Your task to perform on an android device: Turn on the flashlight Image 0: 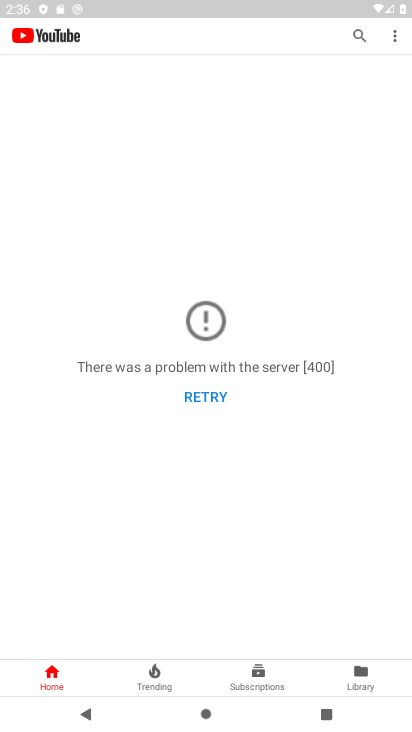
Step 0: press home button
Your task to perform on an android device: Turn on the flashlight Image 1: 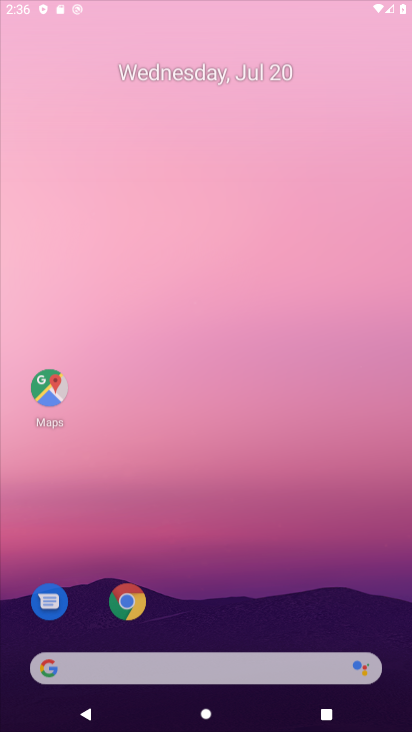
Step 1: press home button
Your task to perform on an android device: Turn on the flashlight Image 2: 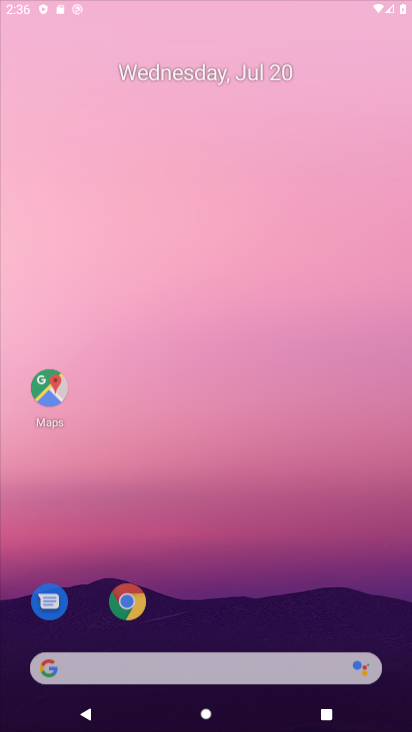
Step 2: click (194, 11)
Your task to perform on an android device: Turn on the flashlight Image 3: 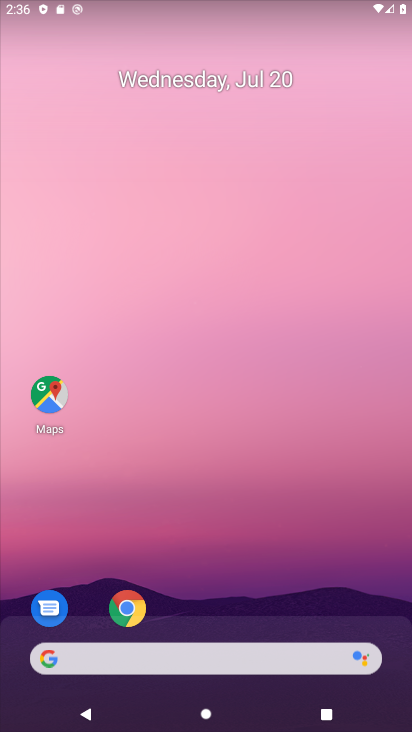
Step 3: drag from (288, 590) to (297, 104)
Your task to perform on an android device: Turn on the flashlight Image 4: 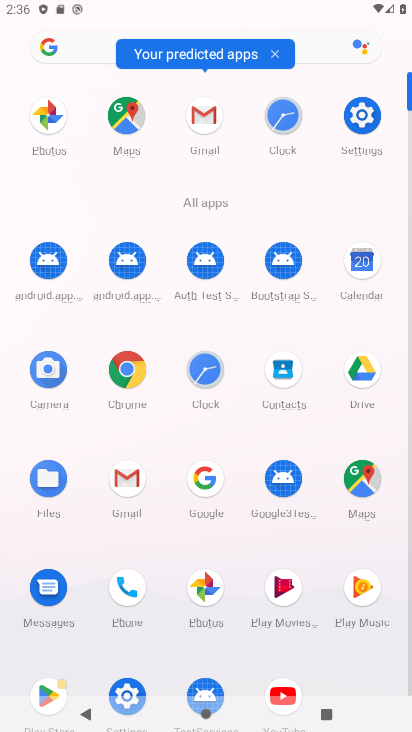
Step 4: click (366, 117)
Your task to perform on an android device: Turn on the flashlight Image 5: 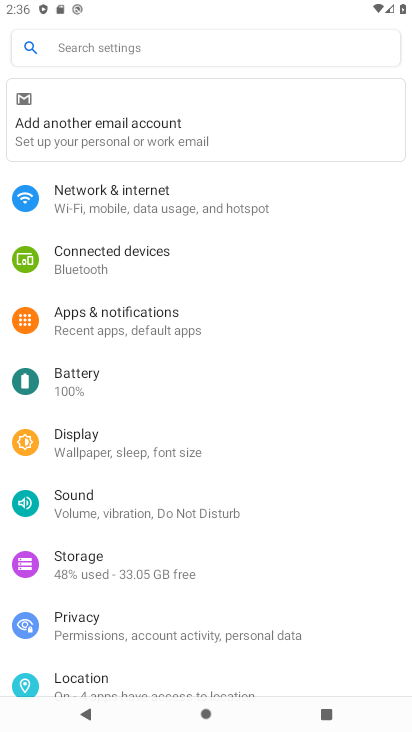
Step 5: drag from (197, 592) to (228, 195)
Your task to perform on an android device: Turn on the flashlight Image 6: 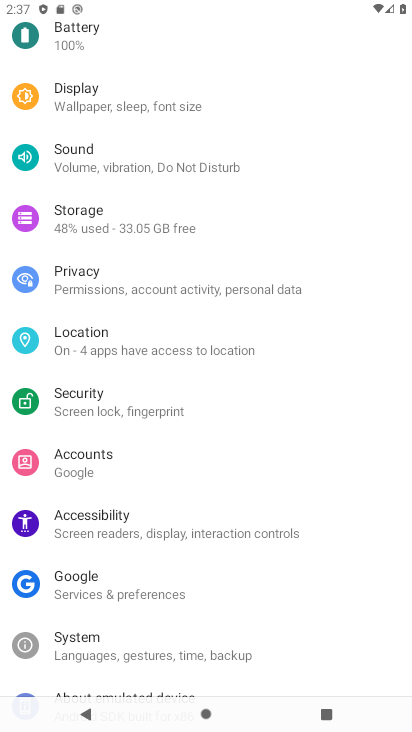
Step 6: click (102, 108)
Your task to perform on an android device: Turn on the flashlight Image 7: 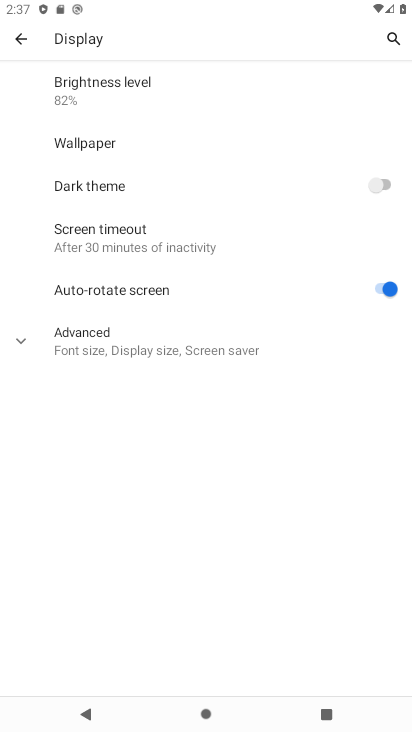
Step 7: click (106, 350)
Your task to perform on an android device: Turn on the flashlight Image 8: 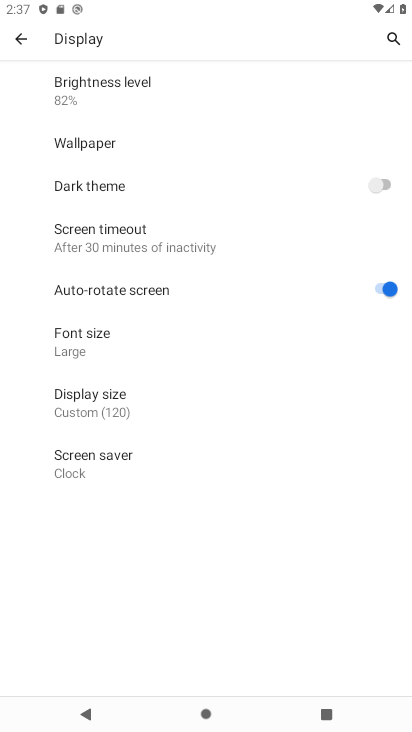
Step 8: task complete